Your task to perform on an android device: uninstall "LiveIn - Share Your Moment" Image 0: 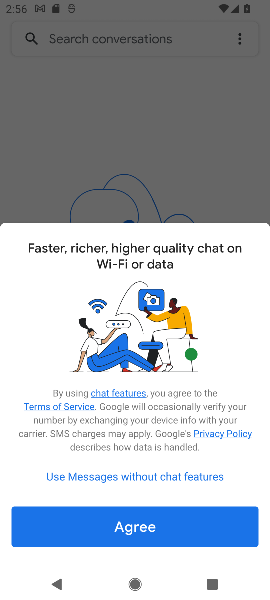
Step 0: press home button
Your task to perform on an android device: uninstall "LiveIn - Share Your Moment" Image 1: 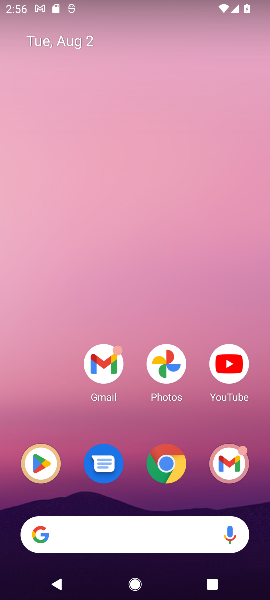
Step 1: click (45, 458)
Your task to perform on an android device: uninstall "LiveIn - Share Your Moment" Image 2: 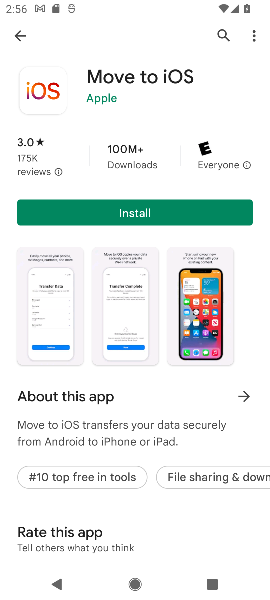
Step 2: click (220, 31)
Your task to perform on an android device: uninstall "LiveIn - Share Your Moment" Image 3: 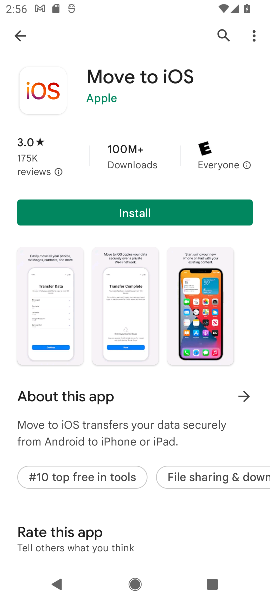
Step 3: click (220, 31)
Your task to perform on an android device: uninstall "LiveIn - Share Your Moment" Image 4: 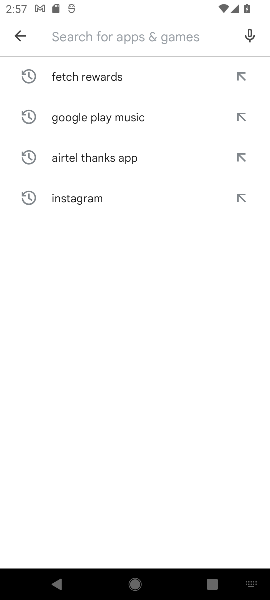
Step 4: type "LiveIn - Share Your Moment"
Your task to perform on an android device: uninstall "LiveIn - Share Your Moment" Image 5: 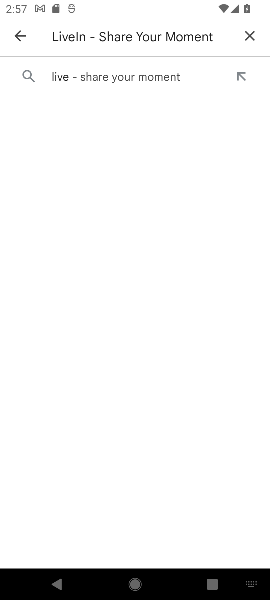
Step 5: click (93, 76)
Your task to perform on an android device: uninstall "LiveIn - Share Your Moment" Image 6: 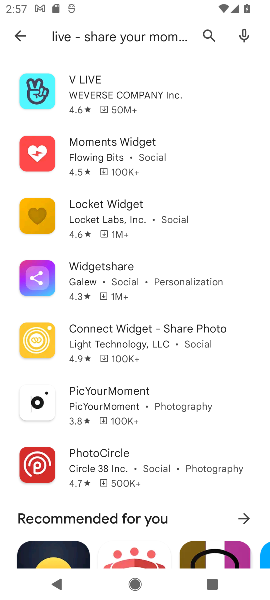
Step 6: task complete